Your task to perform on an android device: Go to CNN.com Image 0: 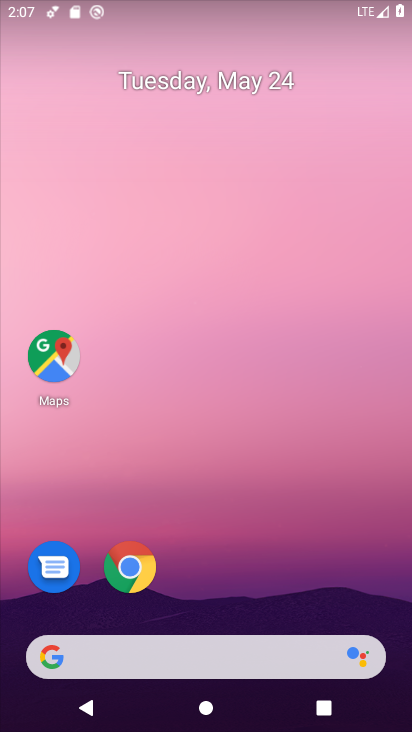
Step 0: click (132, 566)
Your task to perform on an android device: Go to CNN.com Image 1: 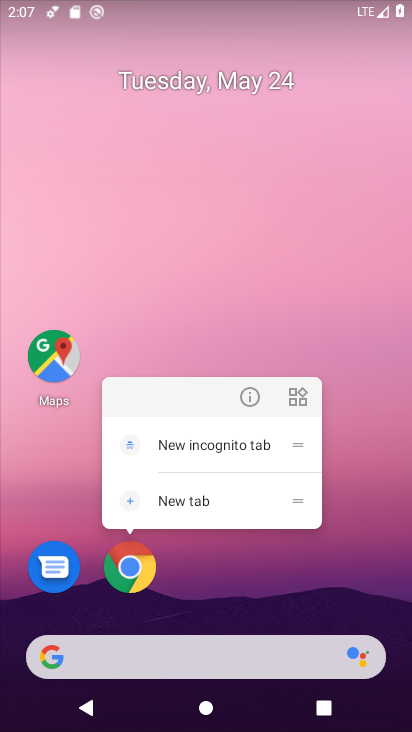
Step 1: click (126, 541)
Your task to perform on an android device: Go to CNN.com Image 2: 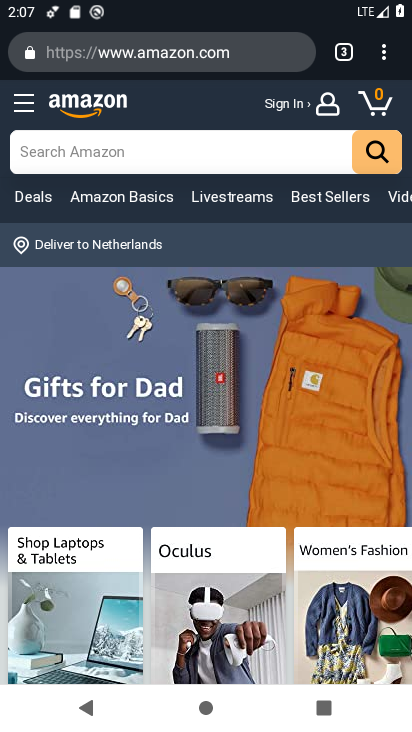
Step 2: click (219, 40)
Your task to perform on an android device: Go to CNN.com Image 3: 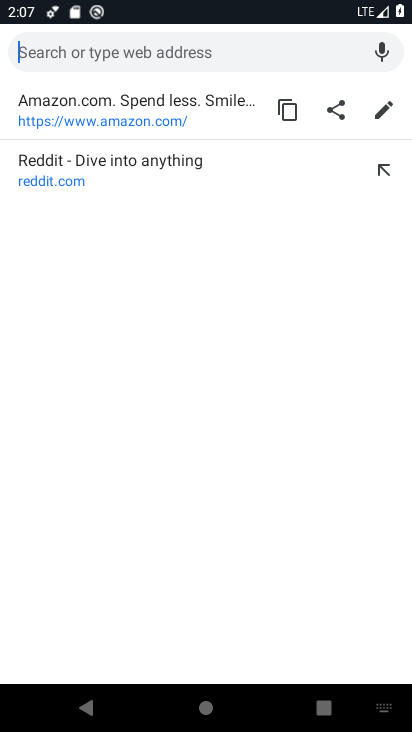
Step 3: type "CNN.com"
Your task to perform on an android device: Go to CNN.com Image 4: 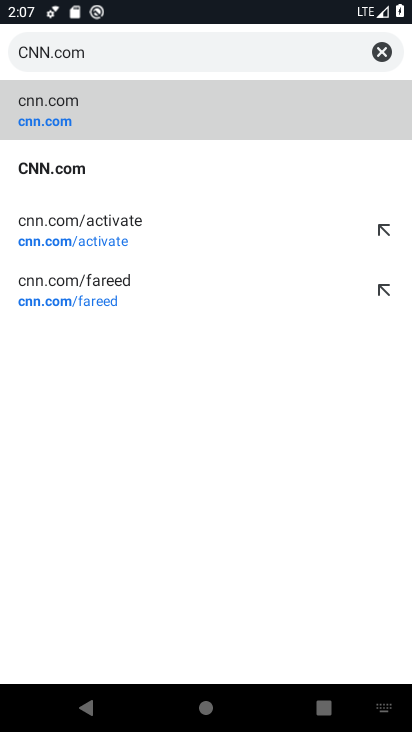
Step 4: click (150, 173)
Your task to perform on an android device: Go to CNN.com Image 5: 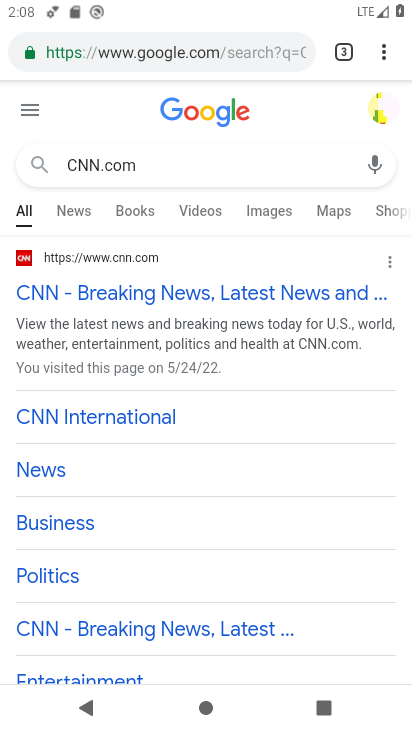
Step 5: task complete